Your task to perform on an android device: see creations saved in the google photos Image 0: 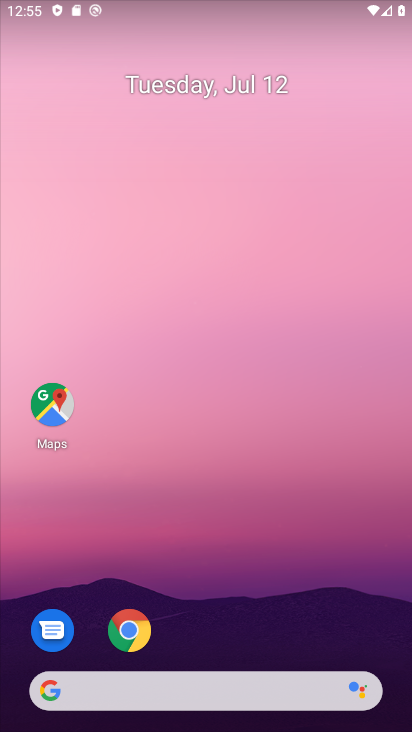
Step 0: drag from (331, 513) to (300, 75)
Your task to perform on an android device: see creations saved in the google photos Image 1: 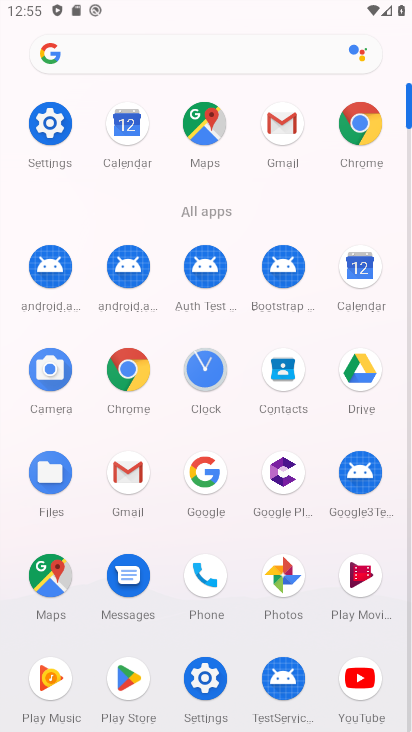
Step 1: click (283, 578)
Your task to perform on an android device: see creations saved in the google photos Image 2: 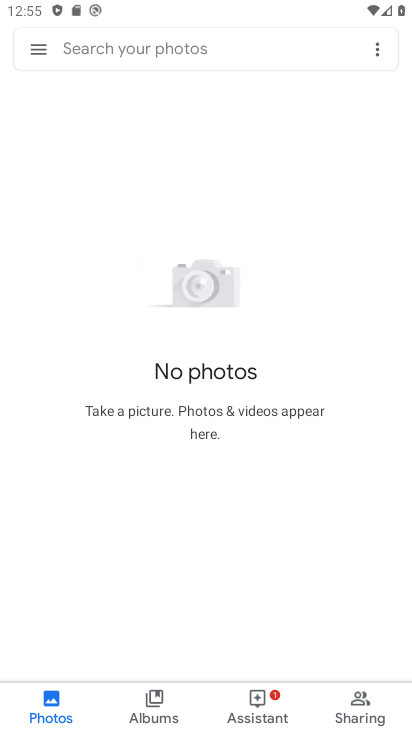
Step 2: click (36, 50)
Your task to perform on an android device: see creations saved in the google photos Image 3: 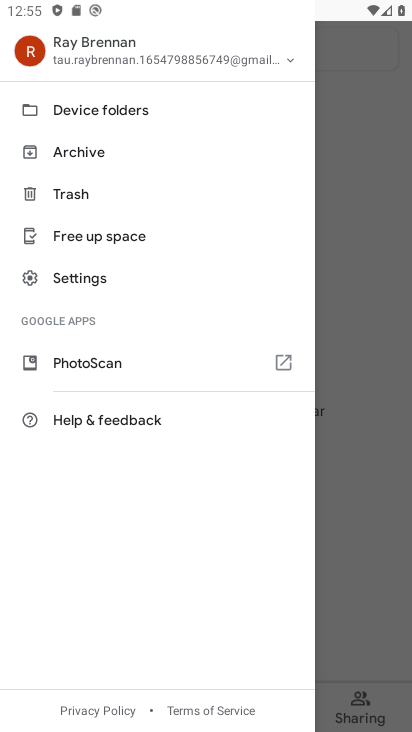
Step 3: click (346, 300)
Your task to perform on an android device: see creations saved in the google photos Image 4: 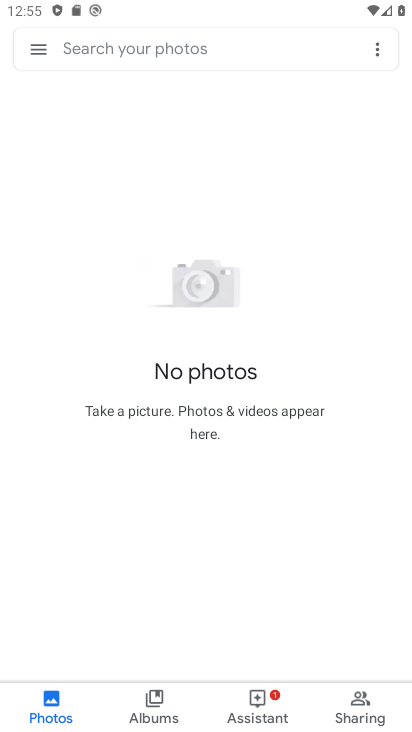
Step 4: task complete